Your task to perform on an android device: turn smart compose on in the gmail app Image 0: 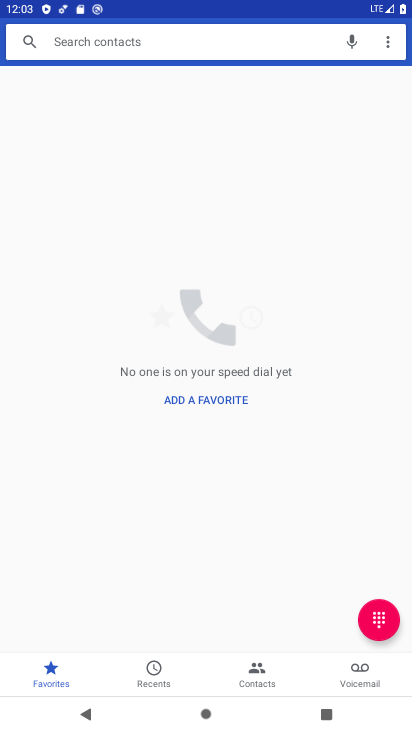
Step 0: press home button
Your task to perform on an android device: turn smart compose on in the gmail app Image 1: 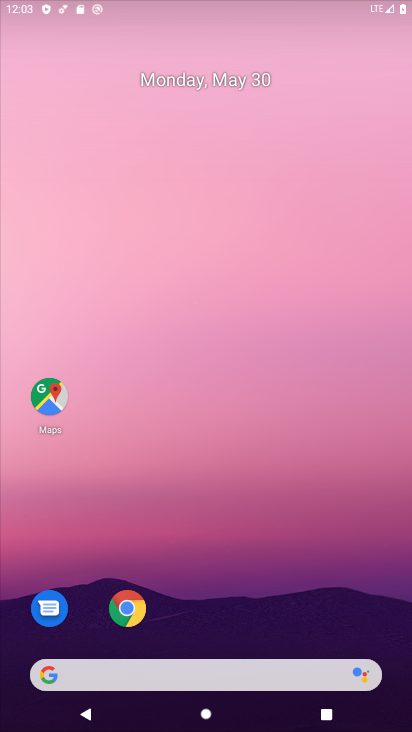
Step 1: drag from (187, 528) to (302, 3)
Your task to perform on an android device: turn smart compose on in the gmail app Image 2: 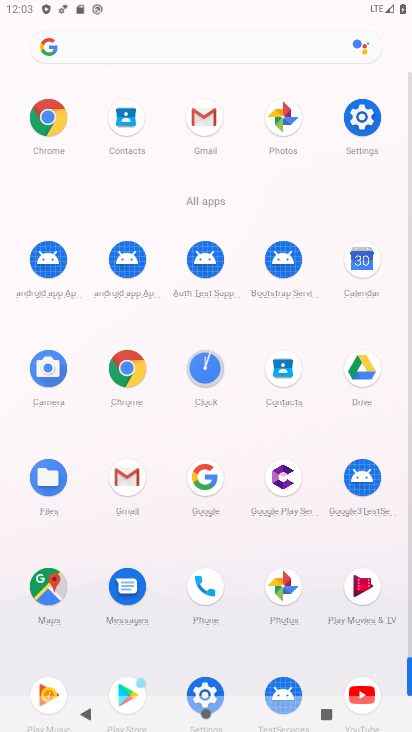
Step 2: click (141, 481)
Your task to perform on an android device: turn smart compose on in the gmail app Image 3: 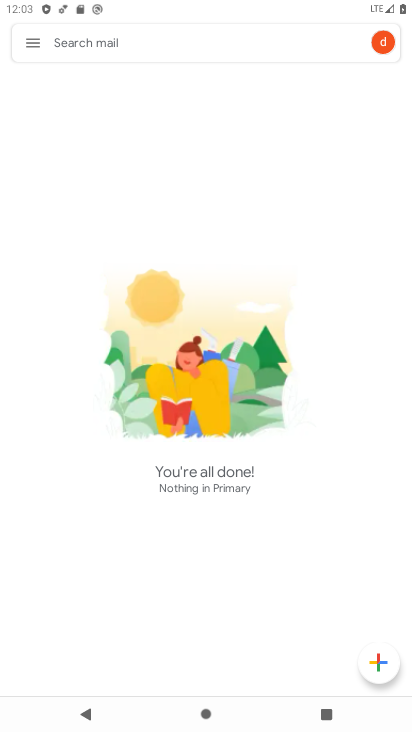
Step 3: click (32, 44)
Your task to perform on an android device: turn smart compose on in the gmail app Image 4: 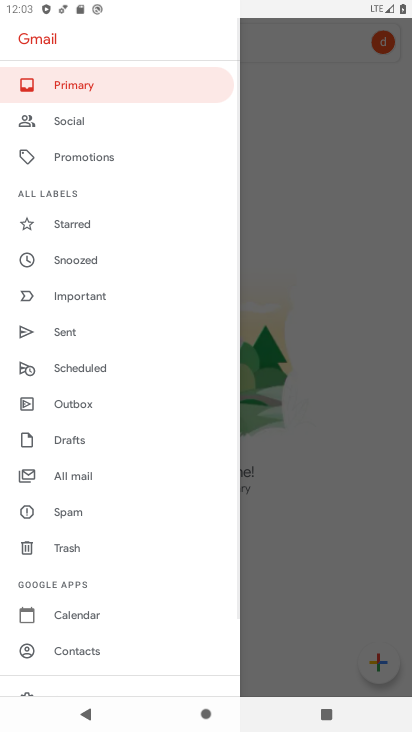
Step 4: drag from (89, 639) to (112, 310)
Your task to perform on an android device: turn smart compose on in the gmail app Image 5: 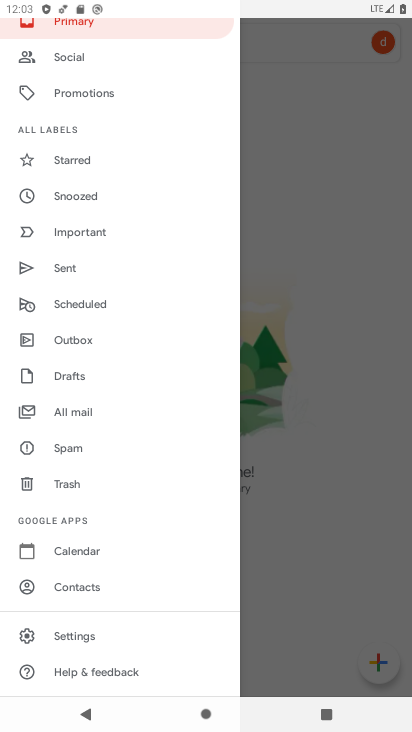
Step 5: click (88, 635)
Your task to perform on an android device: turn smart compose on in the gmail app Image 6: 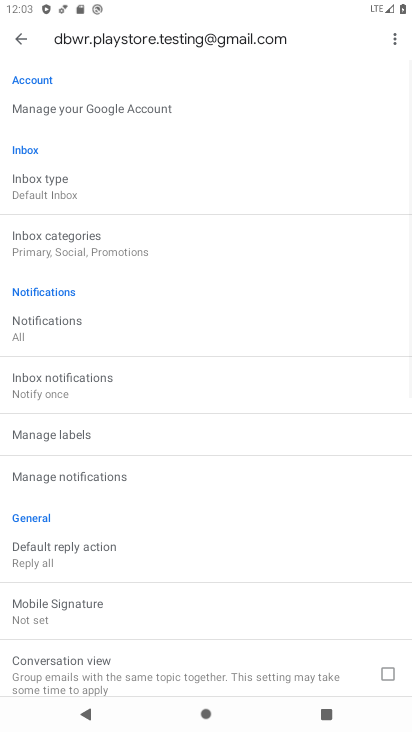
Step 6: task complete